Your task to perform on an android device: Is it going to rain tomorrow? Image 0: 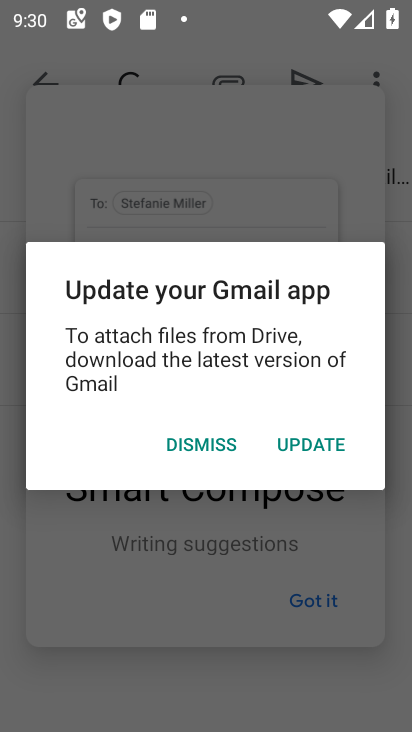
Step 0: press back button
Your task to perform on an android device: Is it going to rain tomorrow? Image 1: 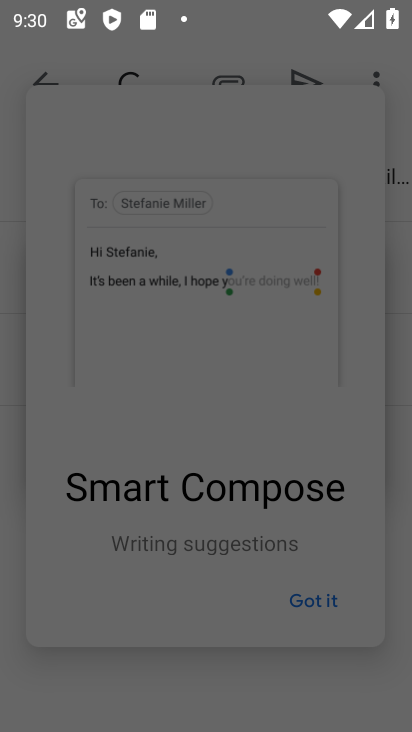
Step 1: press back button
Your task to perform on an android device: Is it going to rain tomorrow? Image 2: 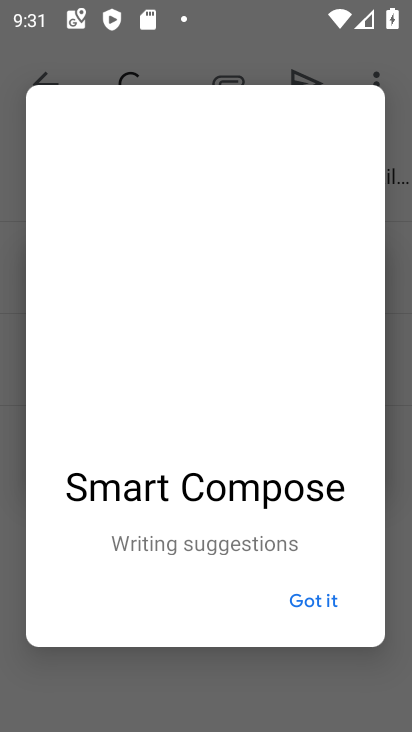
Step 2: press back button
Your task to perform on an android device: Is it going to rain tomorrow? Image 3: 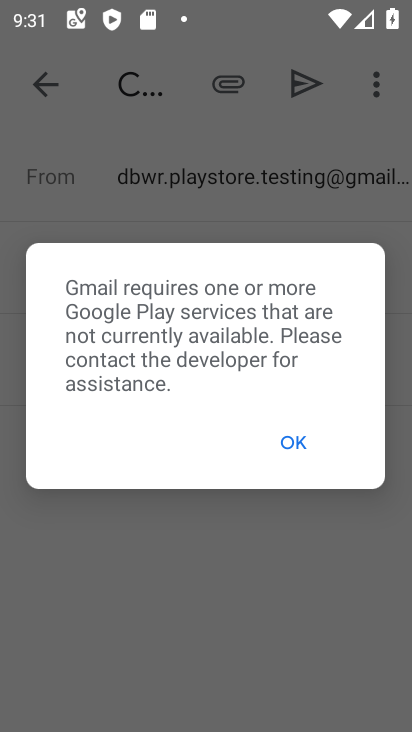
Step 3: press home button
Your task to perform on an android device: Is it going to rain tomorrow? Image 4: 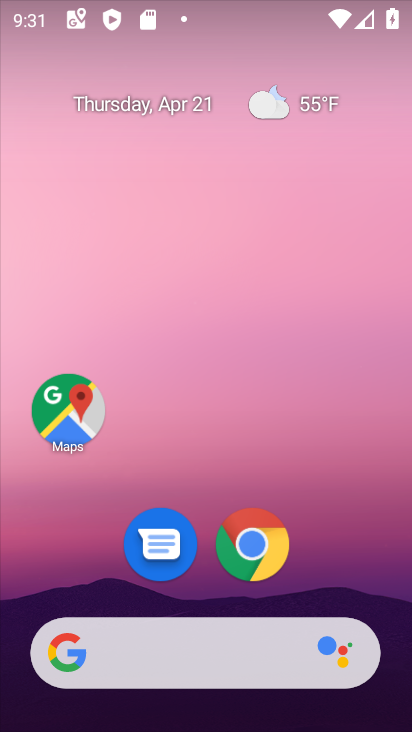
Step 4: click (113, 655)
Your task to perform on an android device: Is it going to rain tomorrow? Image 5: 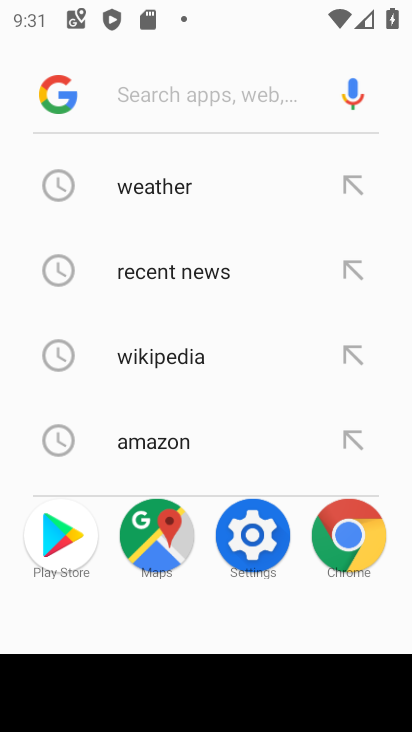
Step 5: type "Is it going to rain tomorrow?"
Your task to perform on an android device: Is it going to rain tomorrow? Image 6: 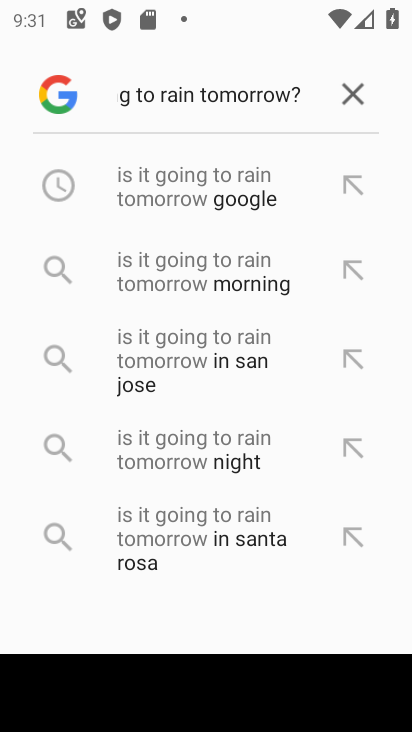
Step 6: click (353, 179)
Your task to perform on an android device: Is it going to rain tomorrow? Image 7: 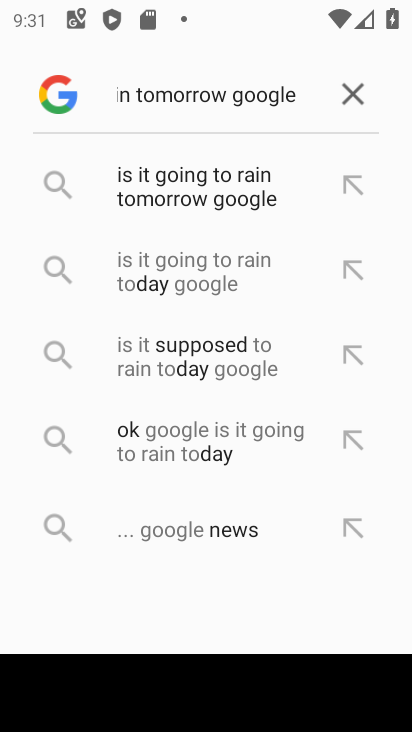
Step 7: click (241, 184)
Your task to perform on an android device: Is it going to rain tomorrow? Image 8: 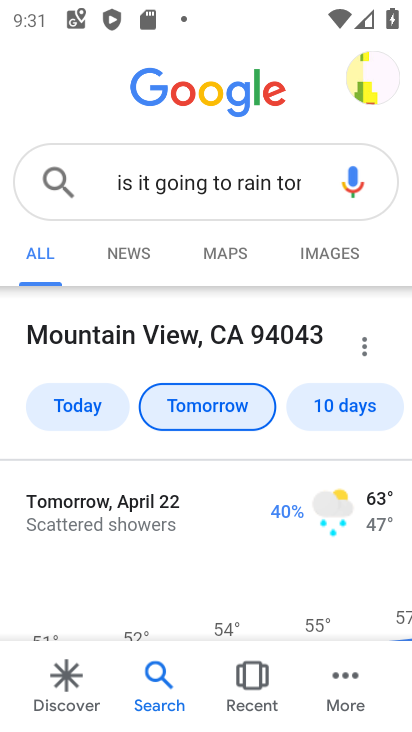
Step 8: task complete